Your task to perform on an android device: allow notifications from all sites in the chrome app Image 0: 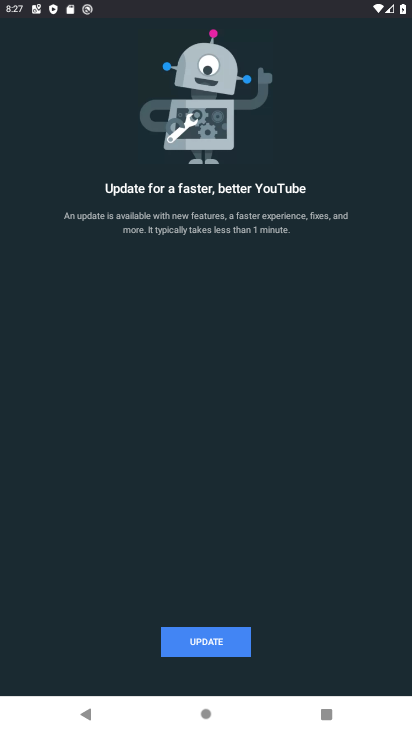
Step 0: press home button
Your task to perform on an android device: allow notifications from all sites in the chrome app Image 1: 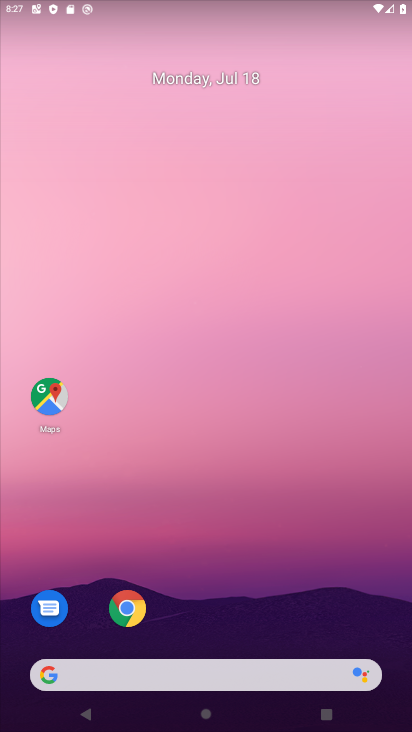
Step 1: click (124, 610)
Your task to perform on an android device: allow notifications from all sites in the chrome app Image 2: 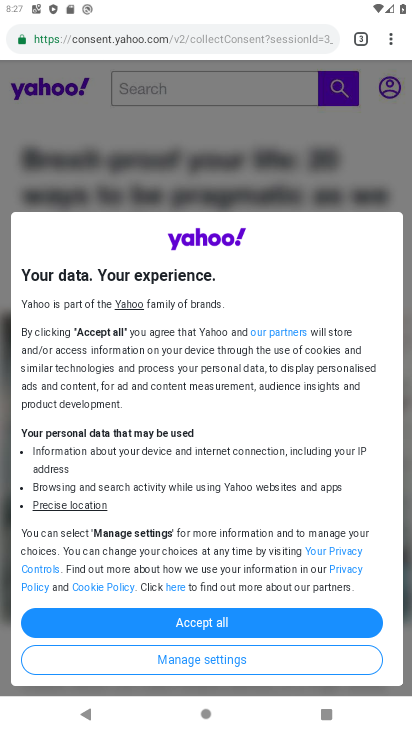
Step 2: click (390, 41)
Your task to perform on an android device: allow notifications from all sites in the chrome app Image 3: 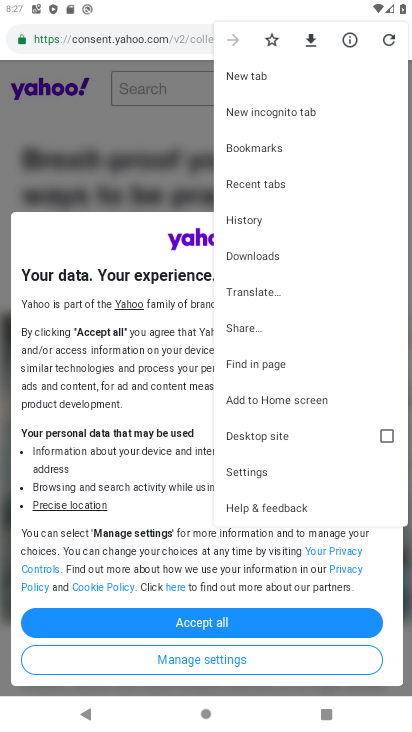
Step 3: click (248, 473)
Your task to perform on an android device: allow notifications from all sites in the chrome app Image 4: 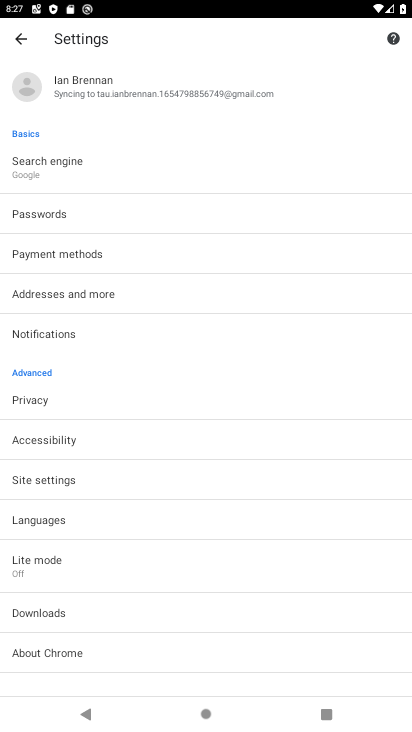
Step 4: click (76, 331)
Your task to perform on an android device: allow notifications from all sites in the chrome app Image 5: 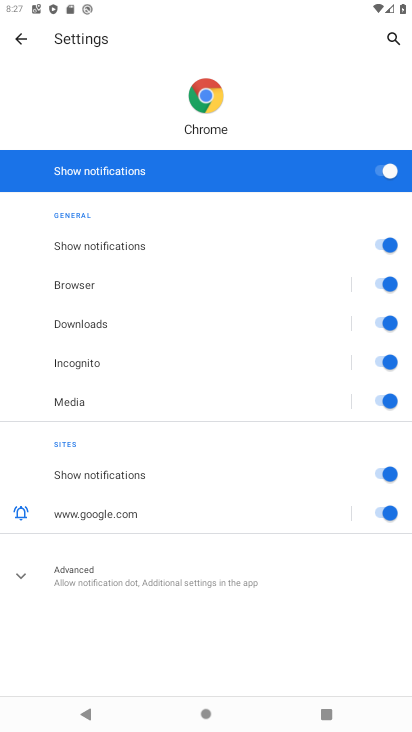
Step 5: task complete